Your task to perform on an android device: turn off smart reply in the gmail app Image 0: 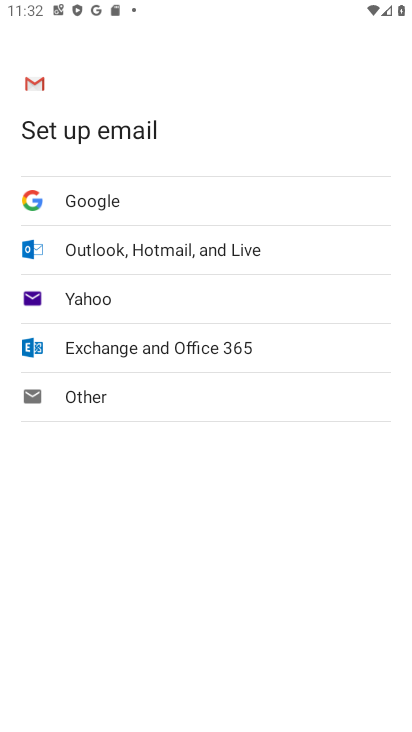
Step 0: press home button
Your task to perform on an android device: turn off smart reply in the gmail app Image 1: 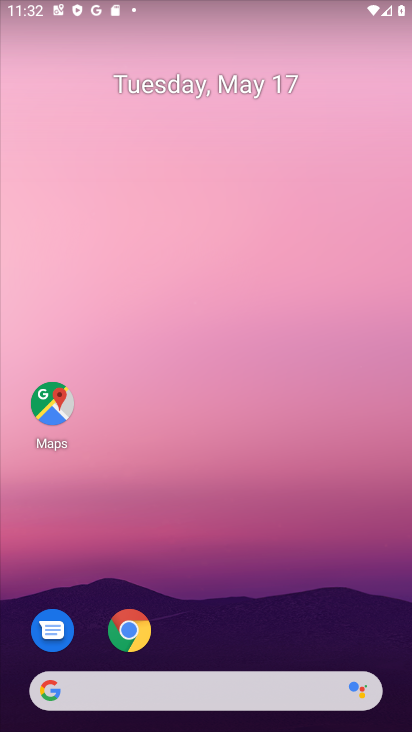
Step 1: drag from (204, 650) to (304, 132)
Your task to perform on an android device: turn off smart reply in the gmail app Image 2: 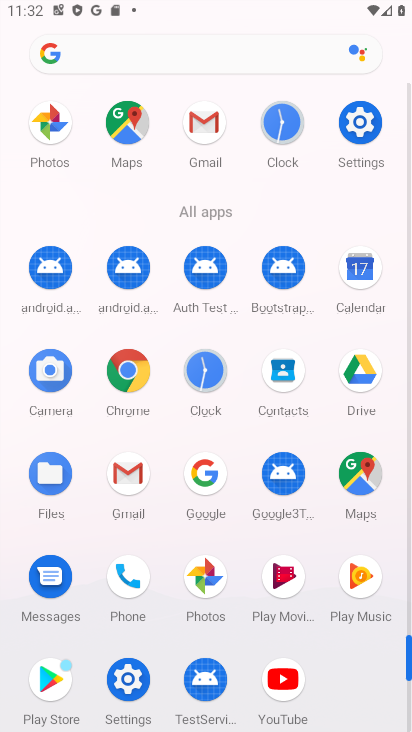
Step 2: click (134, 485)
Your task to perform on an android device: turn off smart reply in the gmail app Image 3: 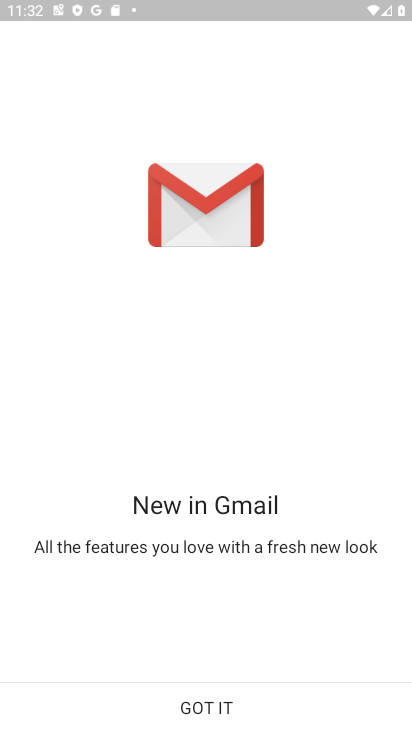
Step 3: click (222, 714)
Your task to perform on an android device: turn off smart reply in the gmail app Image 4: 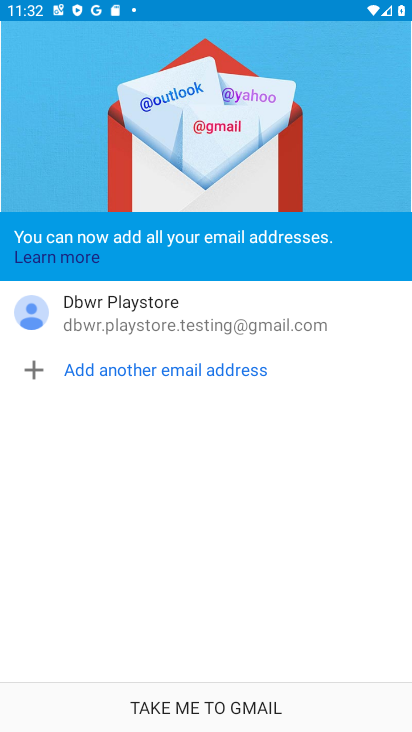
Step 4: click (235, 714)
Your task to perform on an android device: turn off smart reply in the gmail app Image 5: 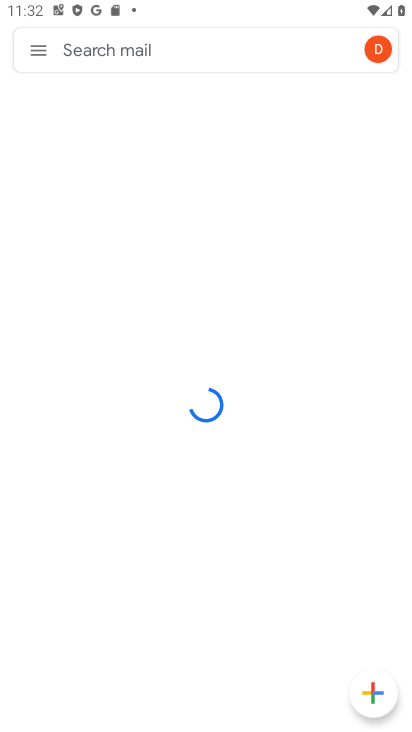
Step 5: click (34, 51)
Your task to perform on an android device: turn off smart reply in the gmail app Image 6: 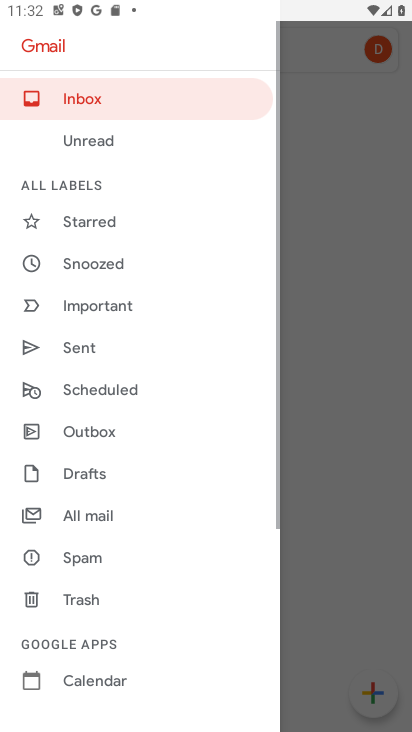
Step 6: drag from (102, 562) to (190, 238)
Your task to perform on an android device: turn off smart reply in the gmail app Image 7: 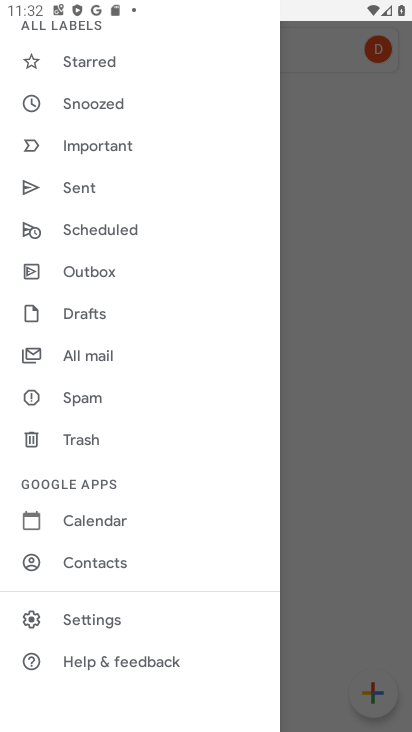
Step 7: click (144, 625)
Your task to perform on an android device: turn off smart reply in the gmail app Image 8: 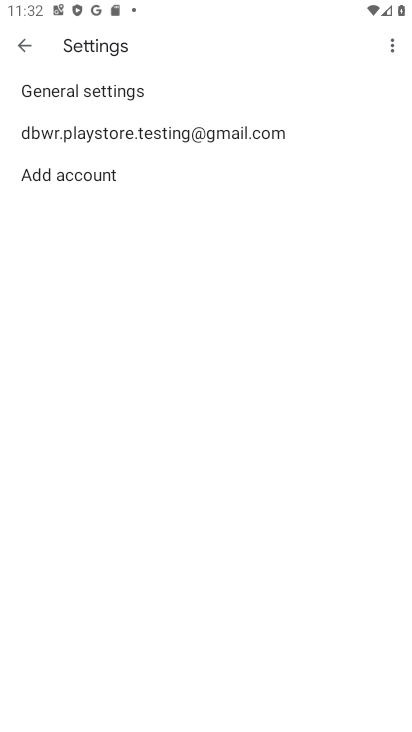
Step 8: click (286, 133)
Your task to perform on an android device: turn off smart reply in the gmail app Image 9: 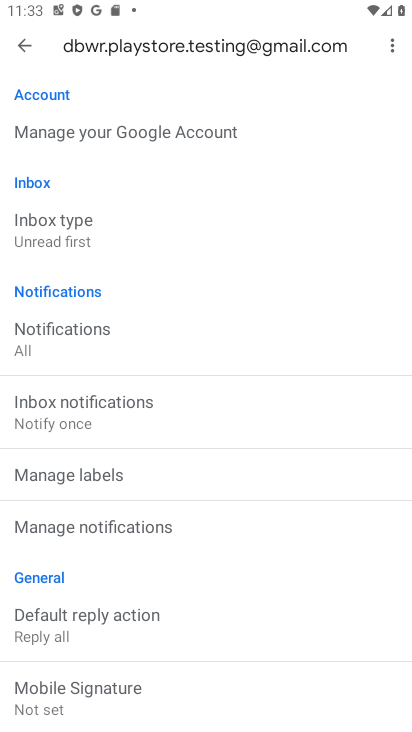
Step 9: drag from (113, 642) to (197, 433)
Your task to perform on an android device: turn off smart reply in the gmail app Image 10: 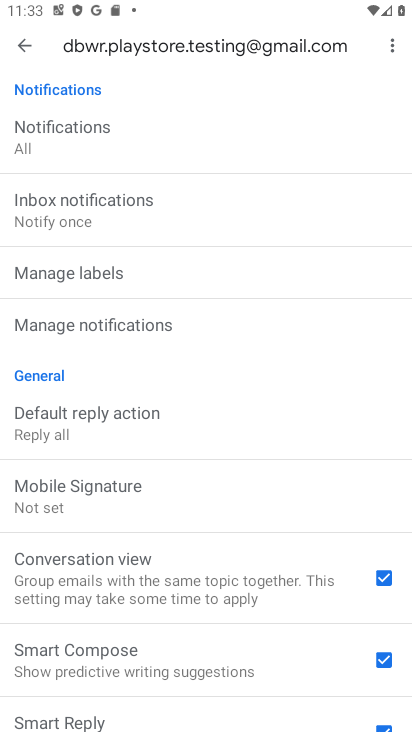
Step 10: drag from (204, 616) to (283, 309)
Your task to perform on an android device: turn off smart reply in the gmail app Image 11: 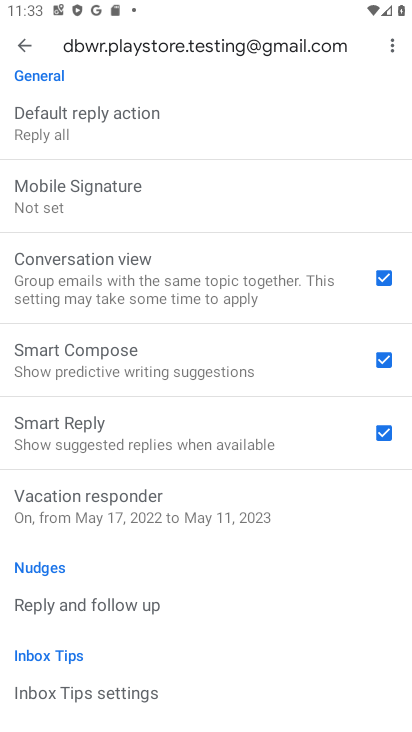
Step 11: click (381, 441)
Your task to perform on an android device: turn off smart reply in the gmail app Image 12: 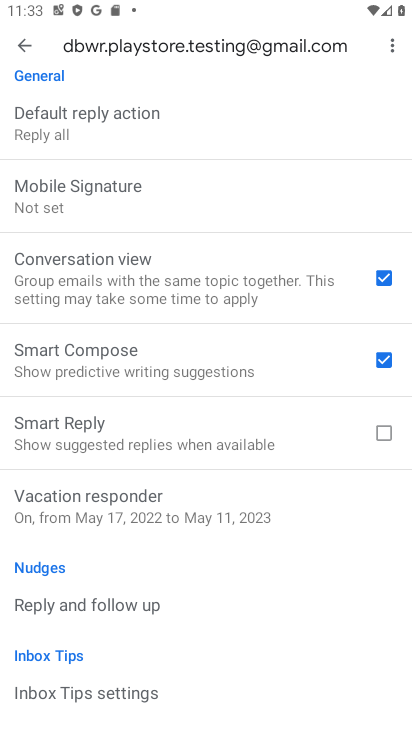
Step 12: task complete